Your task to perform on an android device: Go to privacy settings Image 0: 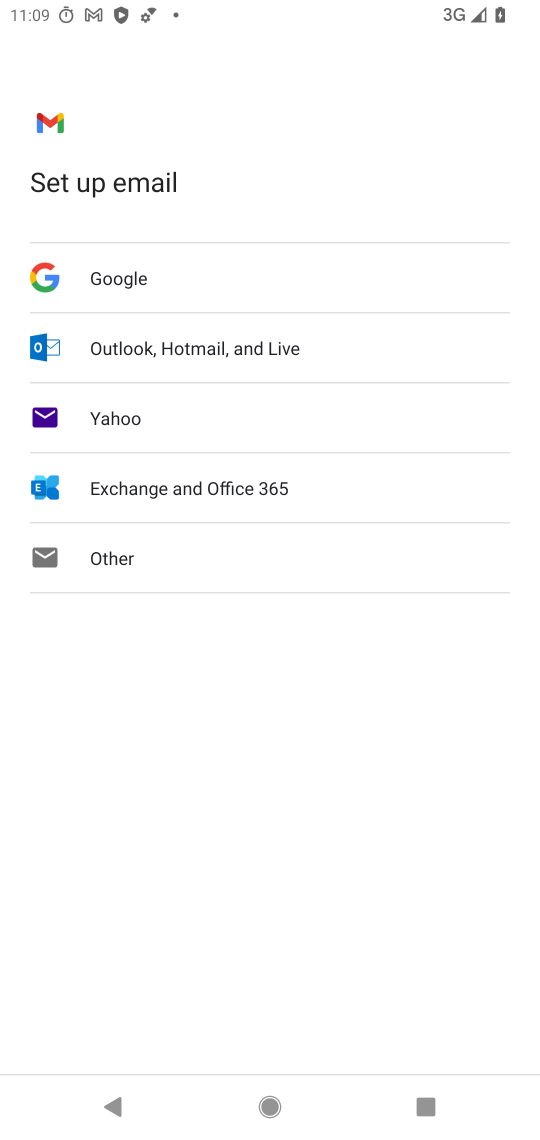
Step 0: press home button
Your task to perform on an android device: Go to privacy settings Image 1: 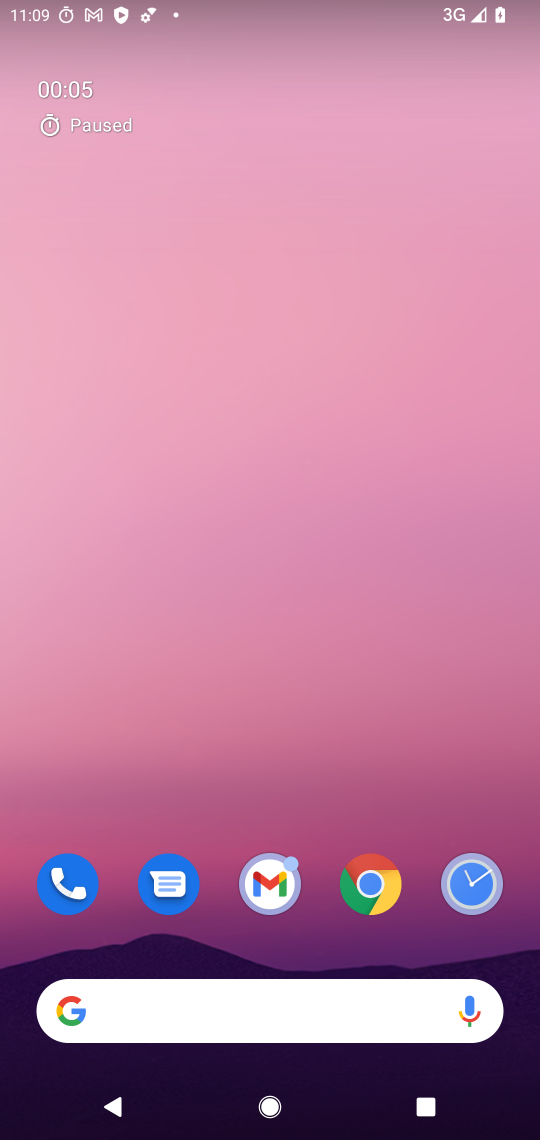
Step 1: drag from (268, 959) to (268, 155)
Your task to perform on an android device: Go to privacy settings Image 2: 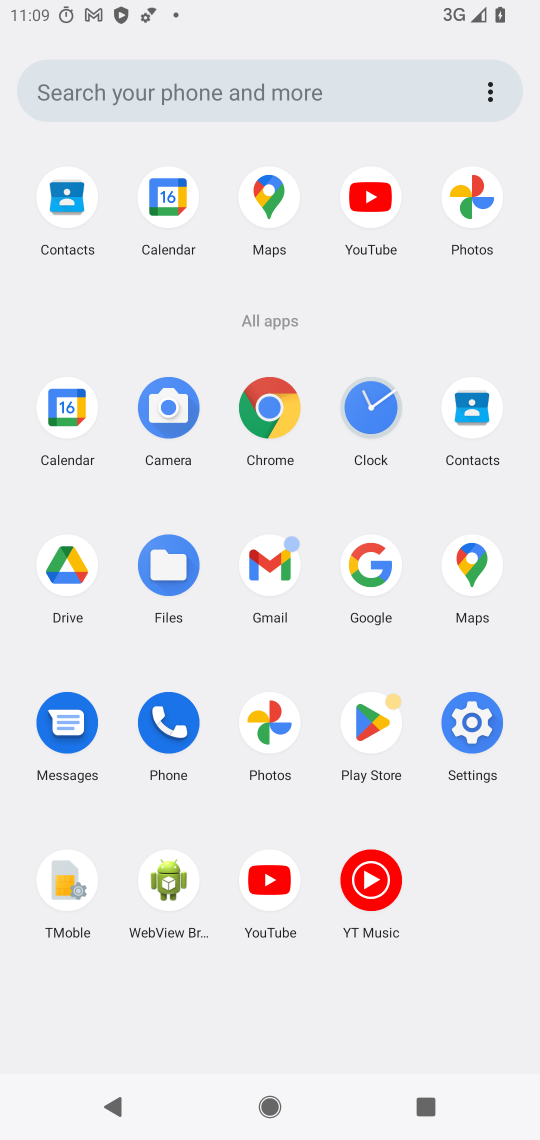
Step 2: click (471, 722)
Your task to perform on an android device: Go to privacy settings Image 3: 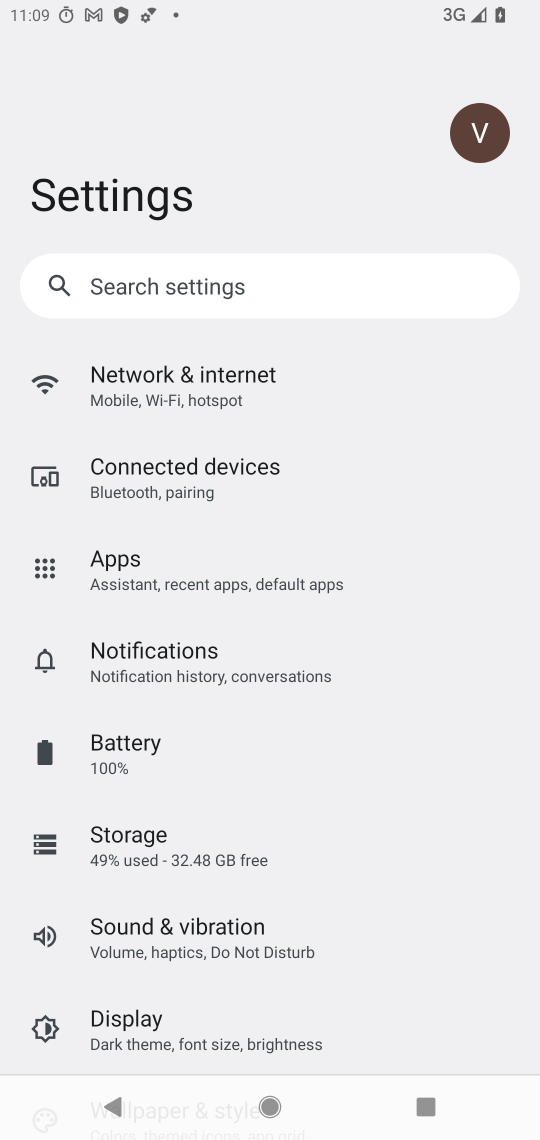
Step 3: drag from (279, 922) to (293, 516)
Your task to perform on an android device: Go to privacy settings Image 4: 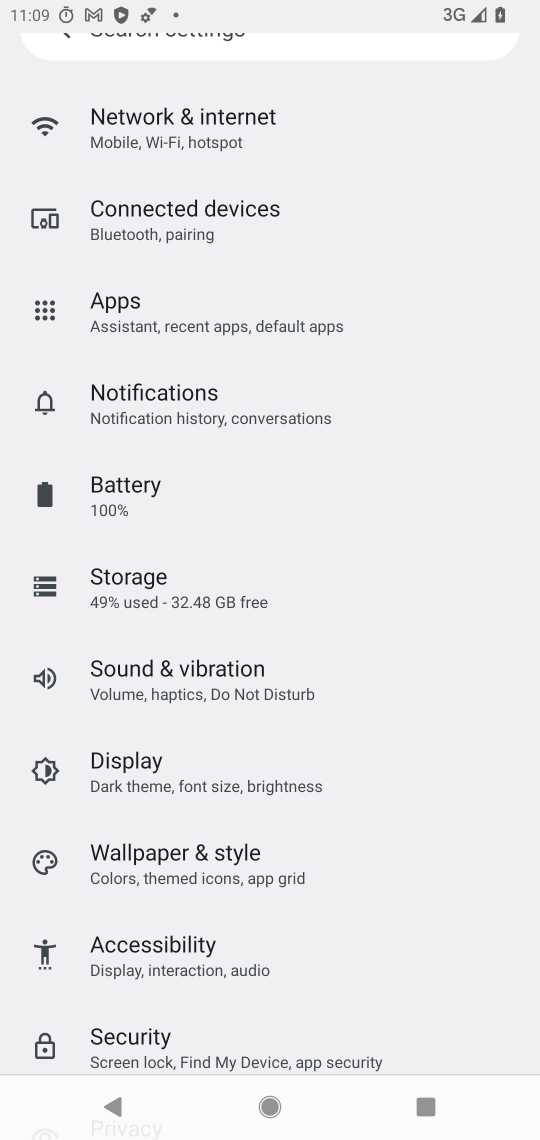
Step 4: drag from (251, 995) to (280, 531)
Your task to perform on an android device: Go to privacy settings Image 5: 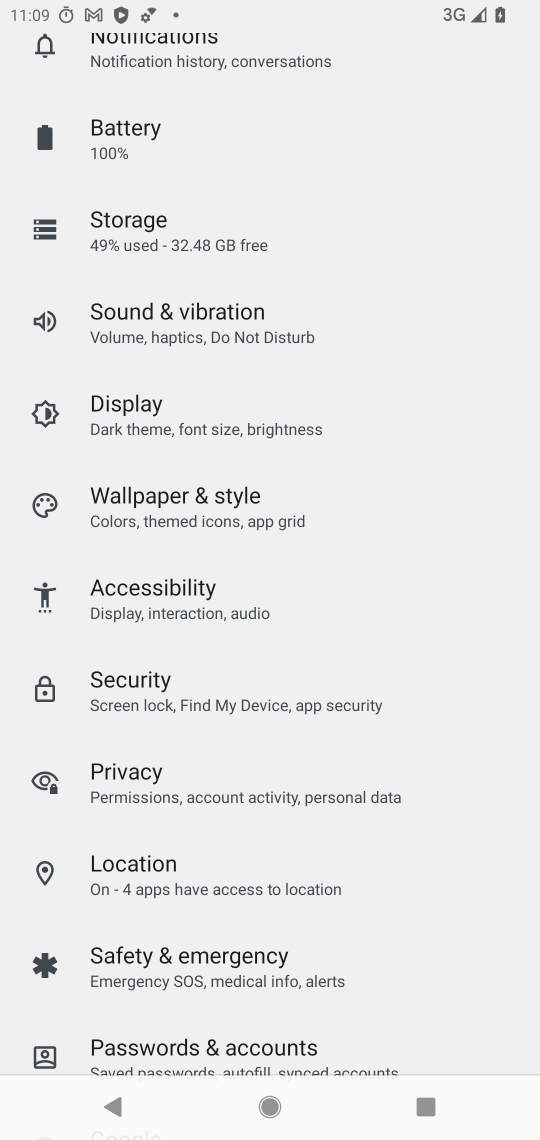
Step 5: click (136, 825)
Your task to perform on an android device: Go to privacy settings Image 6: 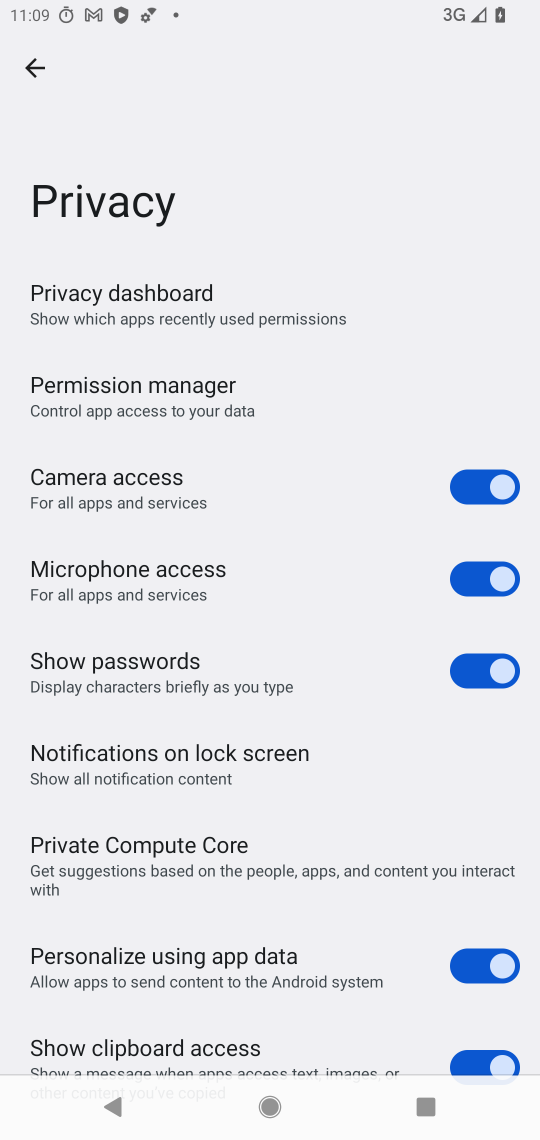
Step 6: task complete